Your task to perform on an android device: toggle improve location accuracy Image 0: 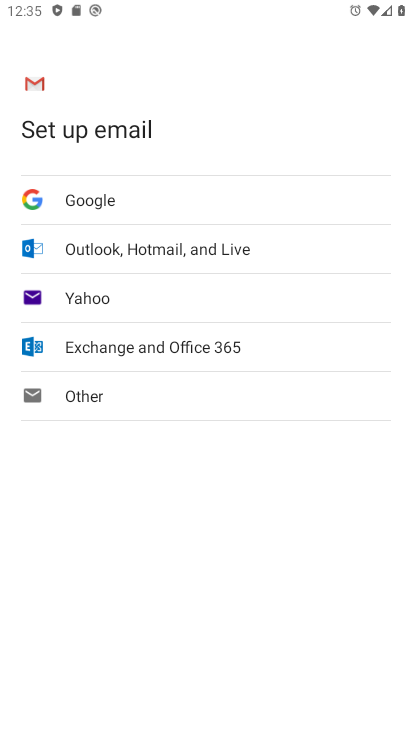
Step 0: press home button
Your task to perform on an android device: toggle improve location accuracy Image 1: 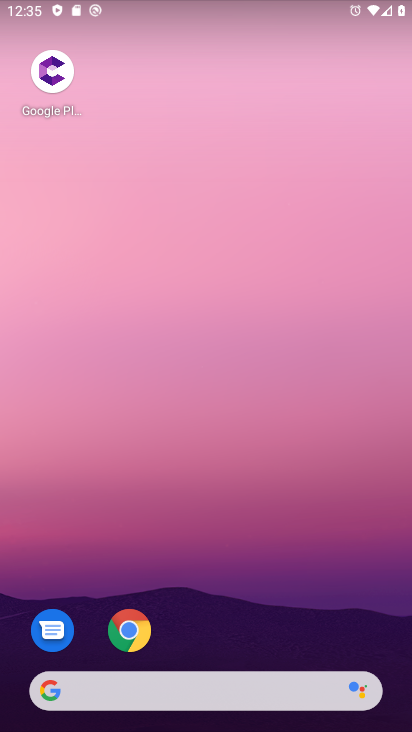
Step 1: drag from (186, 694) to (369, 25)
Your task to perform on an android device: toggle improve location accuracy Image 2: 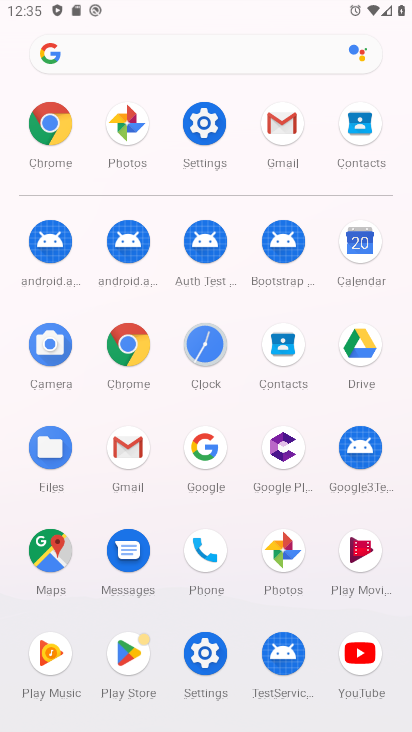
Step 2: click (205, 122)
Your task to perform on an android device: toggle improve location accuracy Image 3: 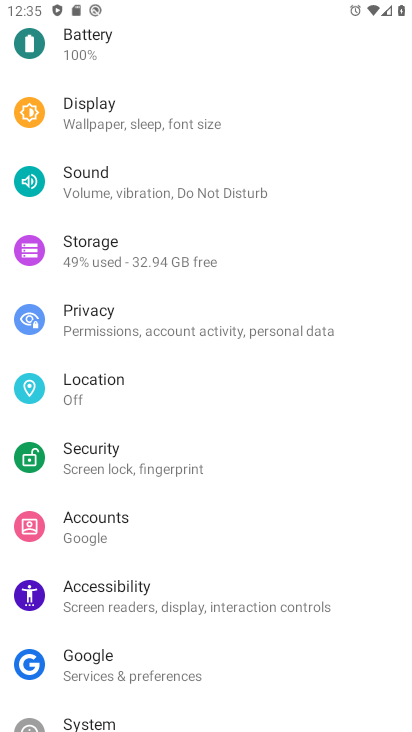
Step 3: click (95, 387)
Your task to perform on an android device: toggle improve location accuracy Image 4: 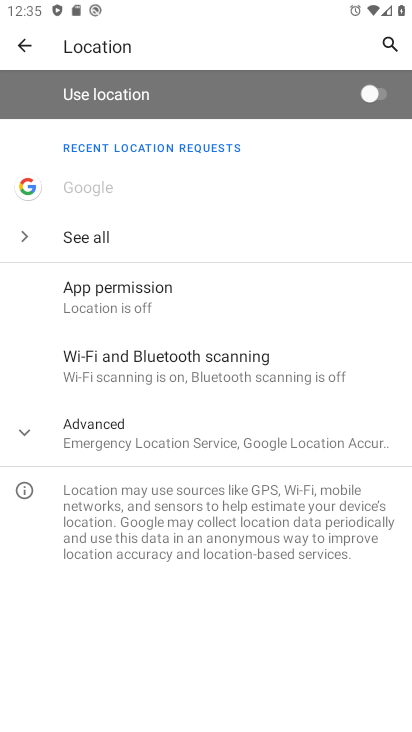
Step 4: click (118, 442)
Your task to perform on an android device: toggle improve location accuracy Image 5: 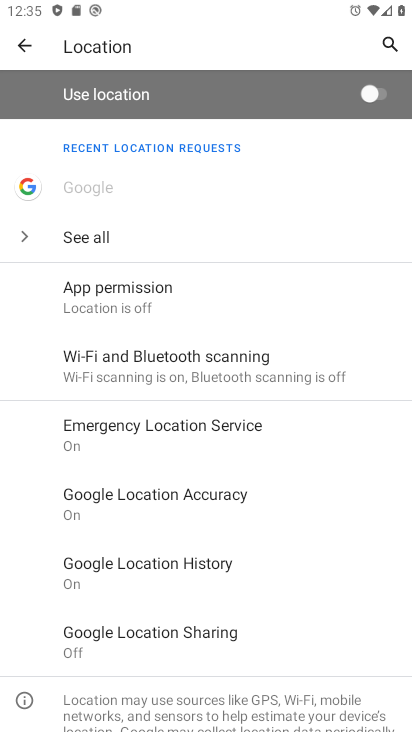
Step 5: click (91, 501)
Your task to perform on an android device: toggle improve location accuracy Image 6: 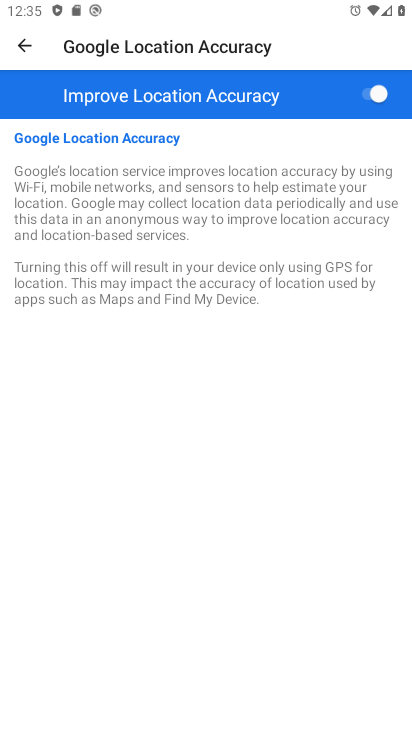
Step 6: click (369, 89)
Your task to perform on an android device: toggle improve location accuracy Image 7: 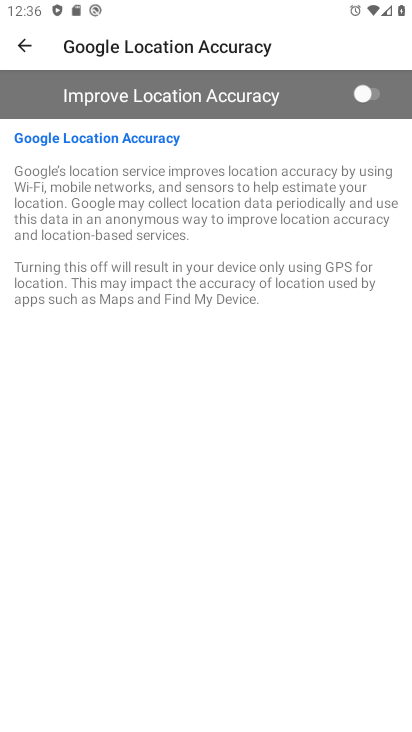
Step 7: task complete